Your task to perform on an android device: Add "apple airpods pro" to the cart on amazon.com, then select checkout. Image 0: 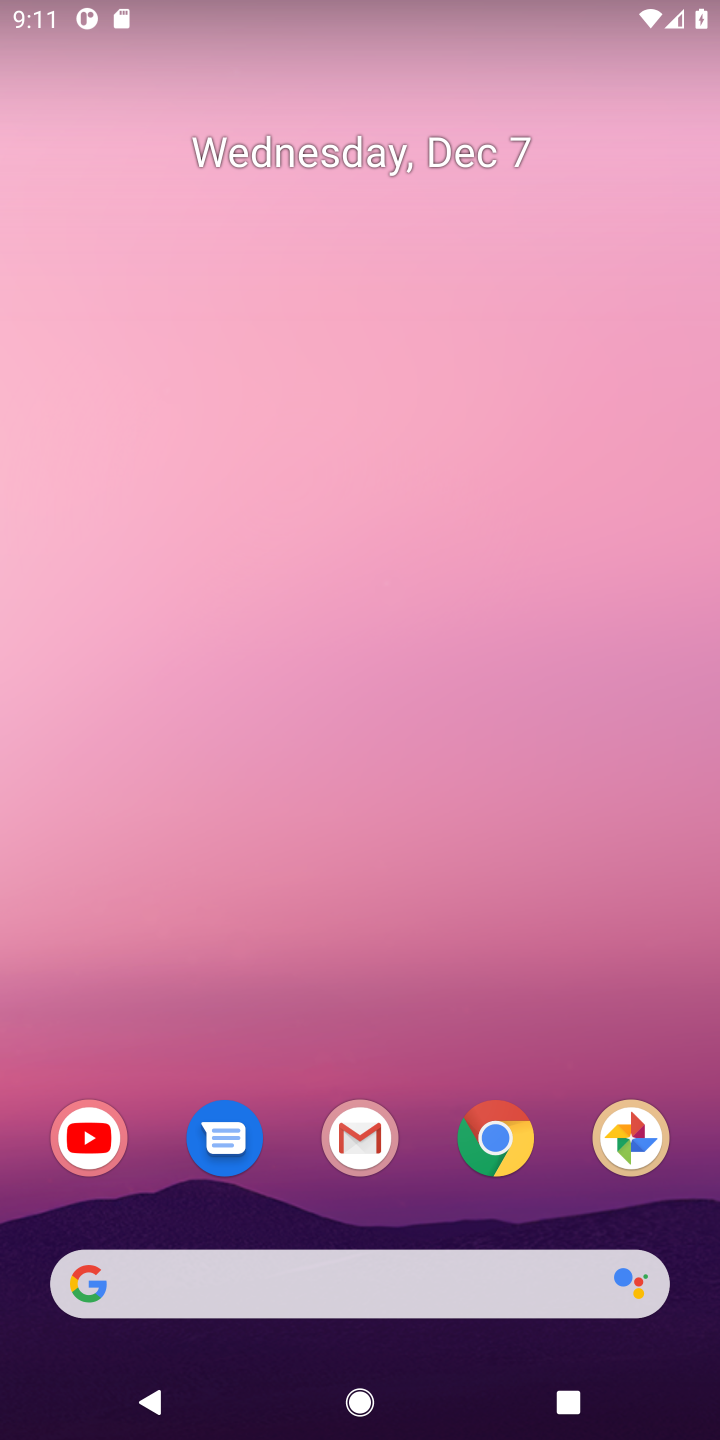
Step 0: press home button
Your task to perform on an android device: Add "apple airpods pro" to the cart on amazon.com, then select checkout. Image 1: 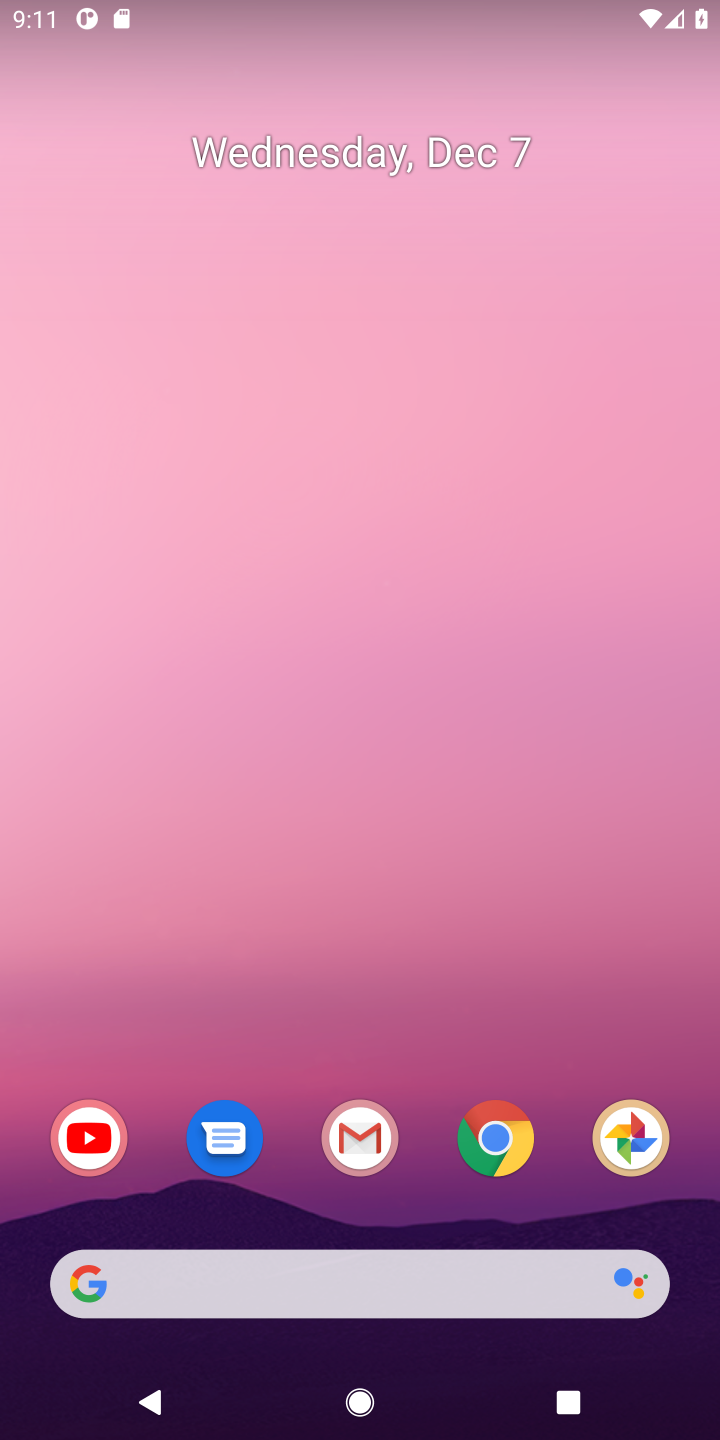
Step 1: click (135, 1280)
Your task to perform on an android device: Add "apple airpods pro" to the cart on amazon.com, then select checkout. Image 2: 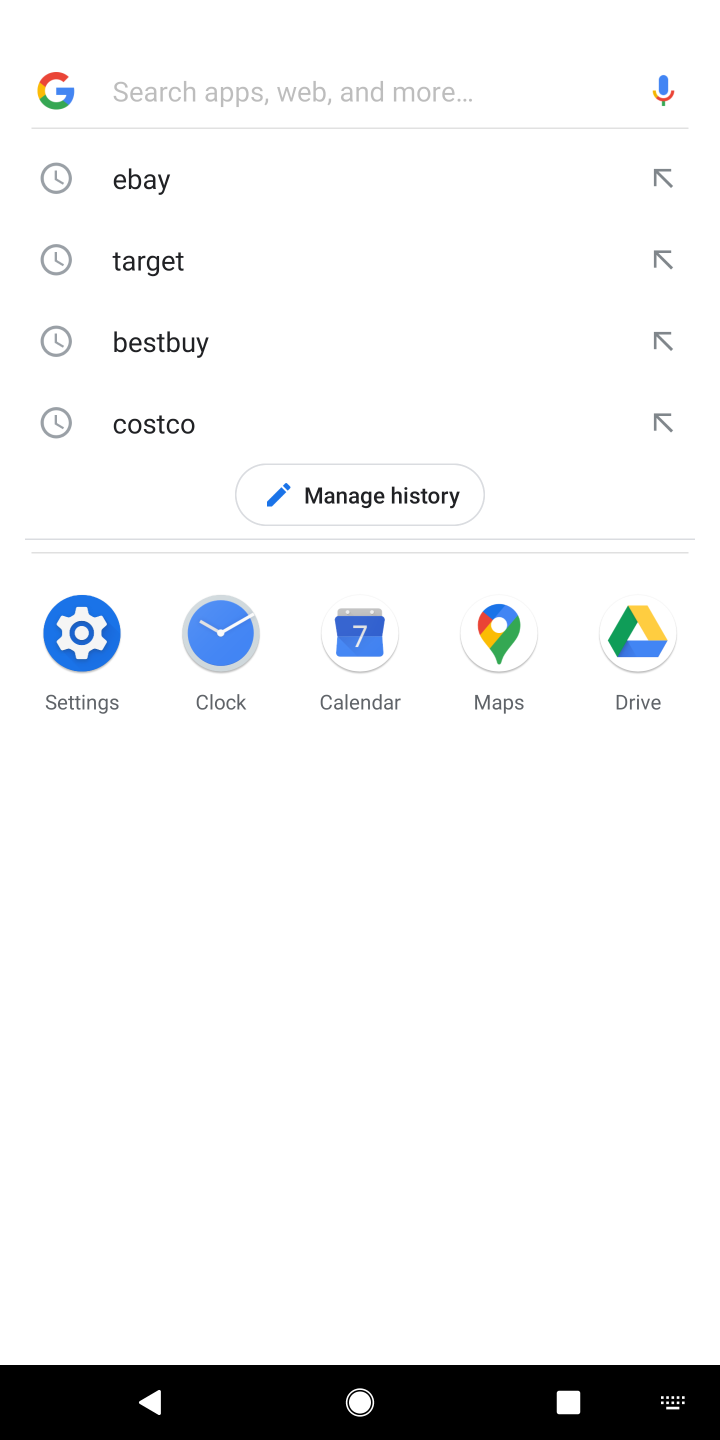
Step 2: press enter
Your task to perform on an android device: Add "apple airpods pro" to the cart on amazon.com, then select checkout. Image 3: 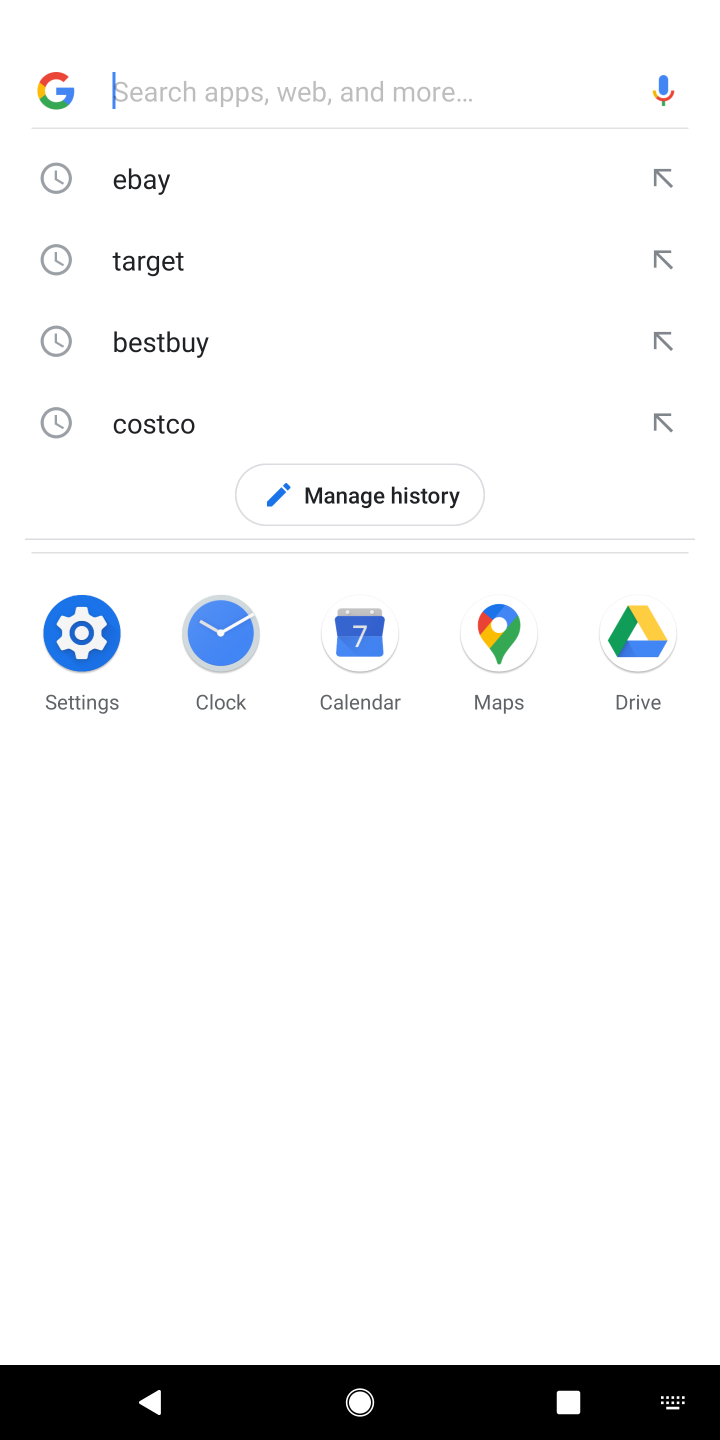
Step 3: type "amazon.com"
Your task to perform on an android device: Add "apple airpods pro" to the cart on amazon.com, then select checkout. Image 4: 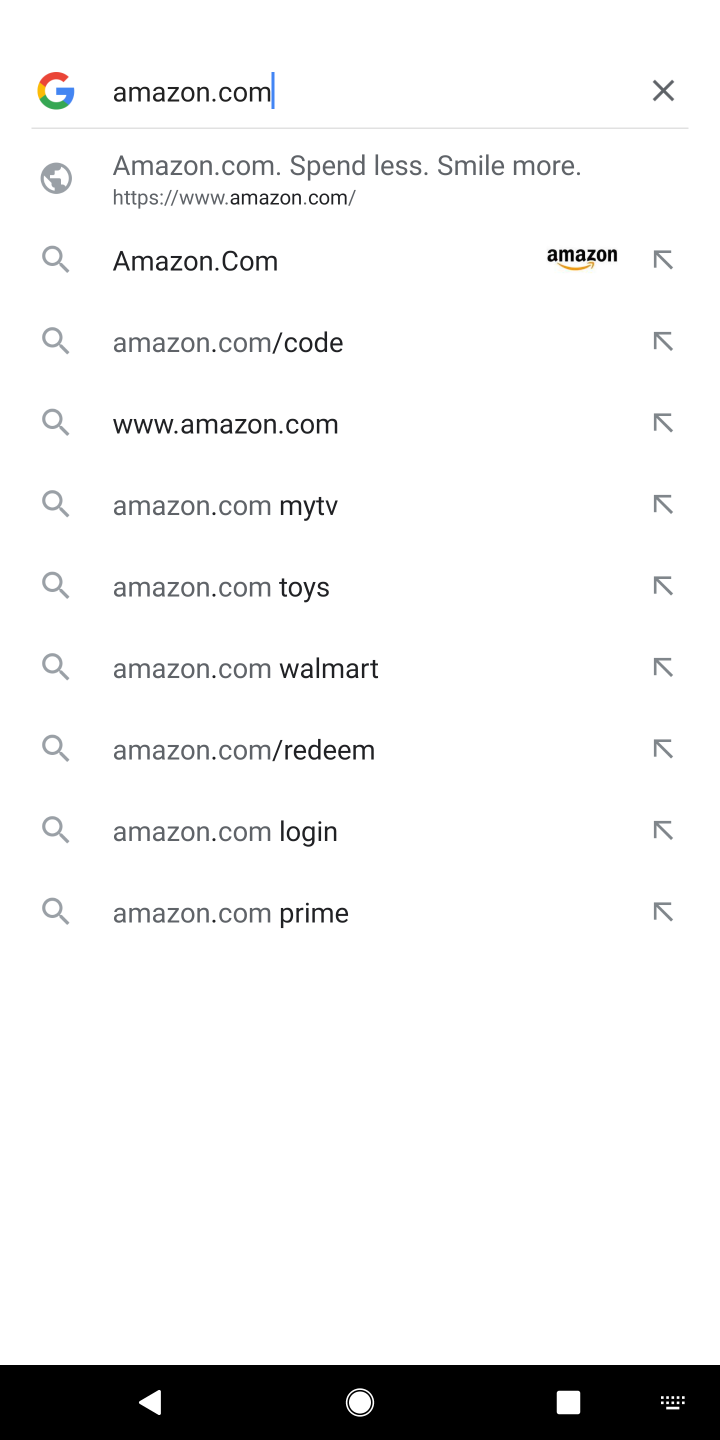
Step 4: press enter
Your task to perform on an android device: Add "apple airpods pro" to the cart on amazon.com, then select checkout. Image 5: 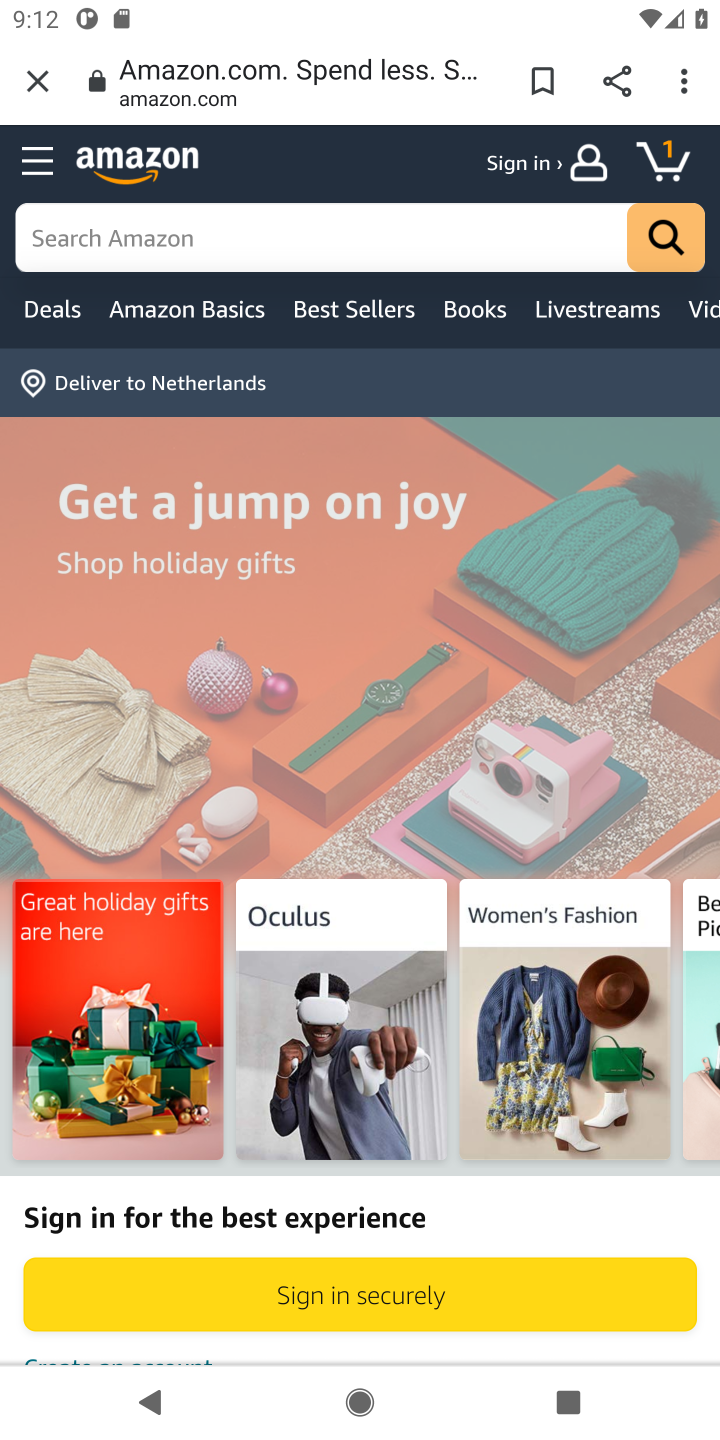
Step 5: click (70, 229)
Your task to perform on an android device: Add "apple airpods pro" to the cart on amazon.com, then select checkout. Image 6: 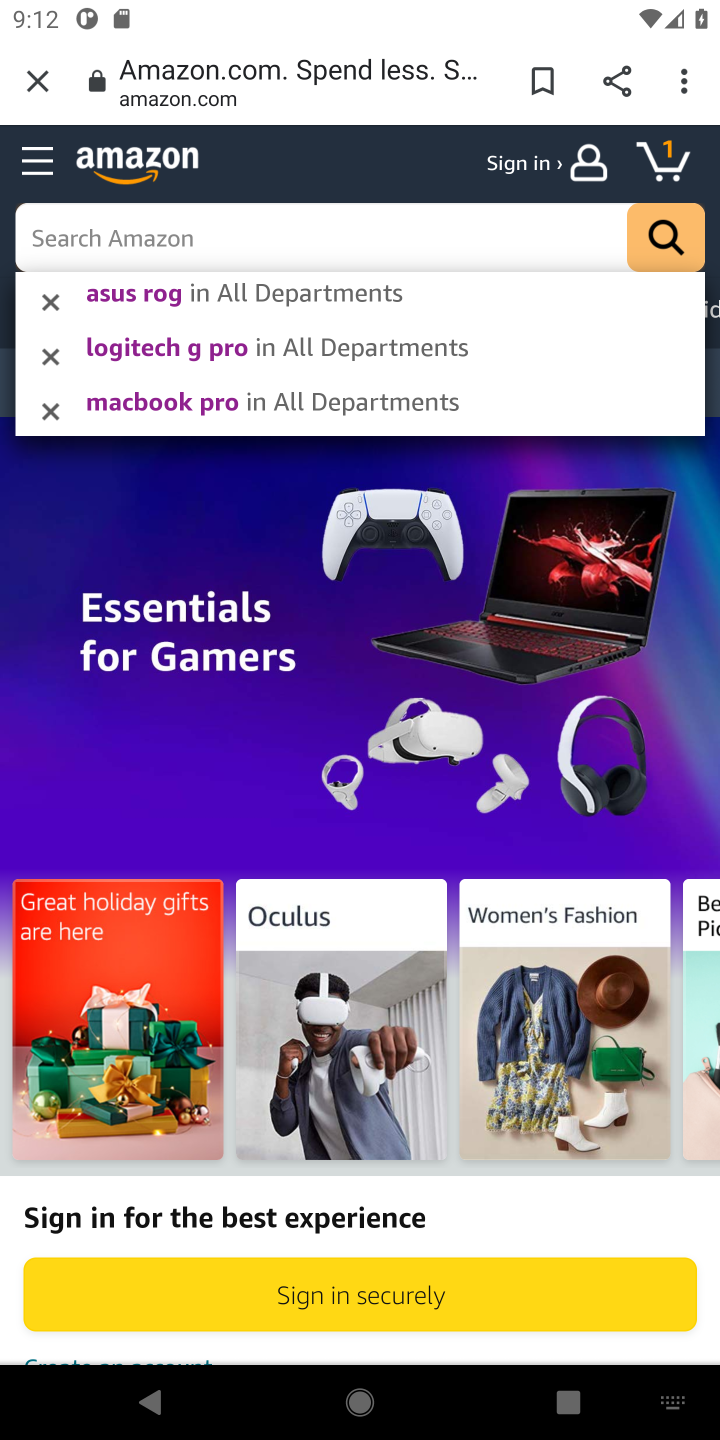
Step 6: type "apple airpods pro"
Your task to perform on an android device: Add "apple airpods pro" to the cart on amazon.com, then select checkout. Image 7: 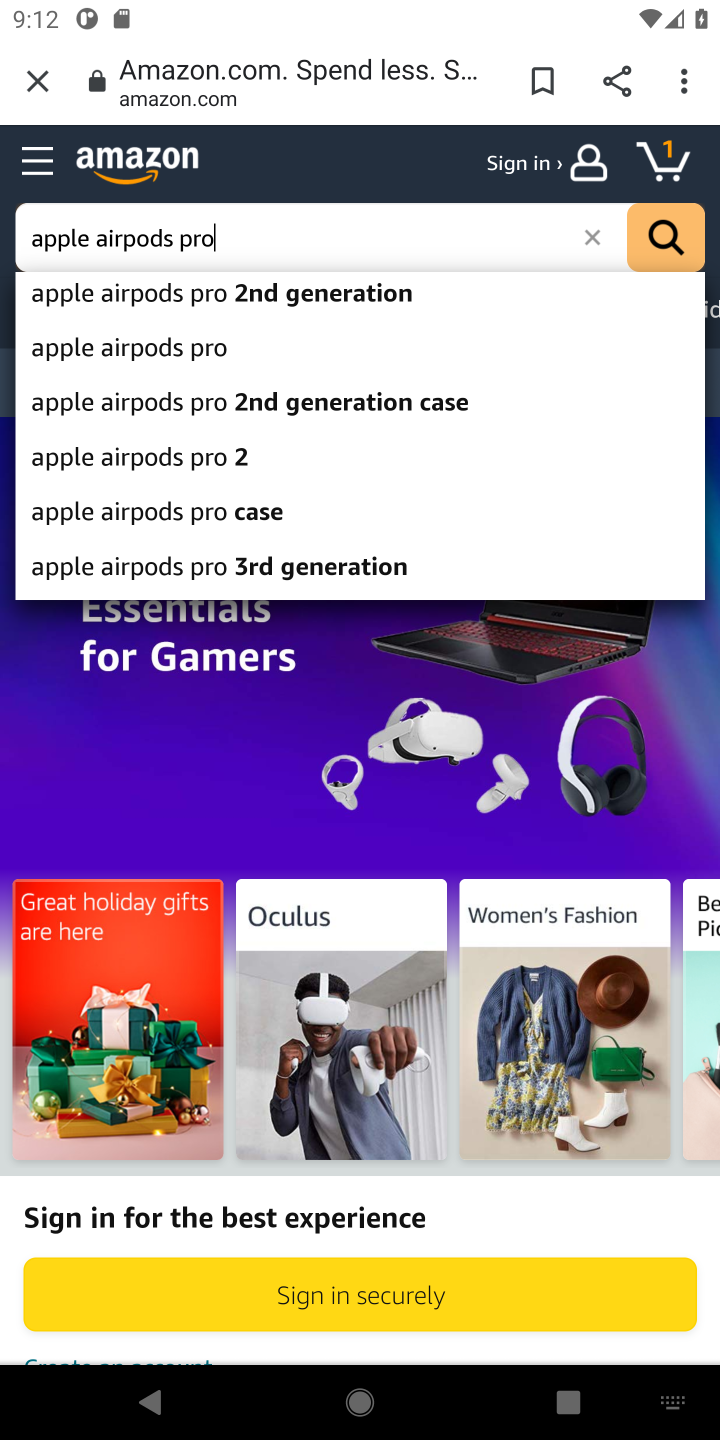
Step 7: press enter
Your task to perform on an android device: Add "apple airpods pro" to the cart on amazon.com, then select checkout. Image 8: 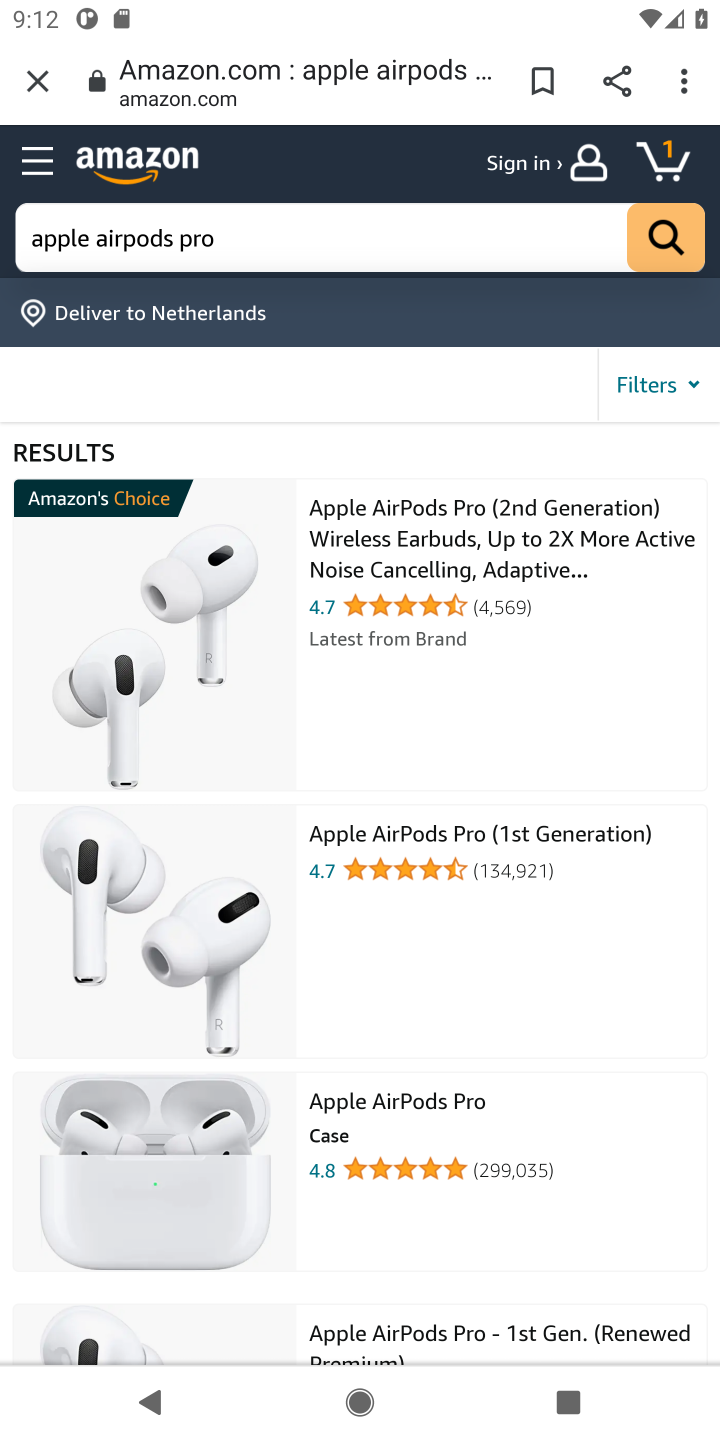
Step 8: click (431, 543)
Your task to perform on an android device: Add "apple airpods pro" to the cart on amazon.com, then select checkout. Image 9: 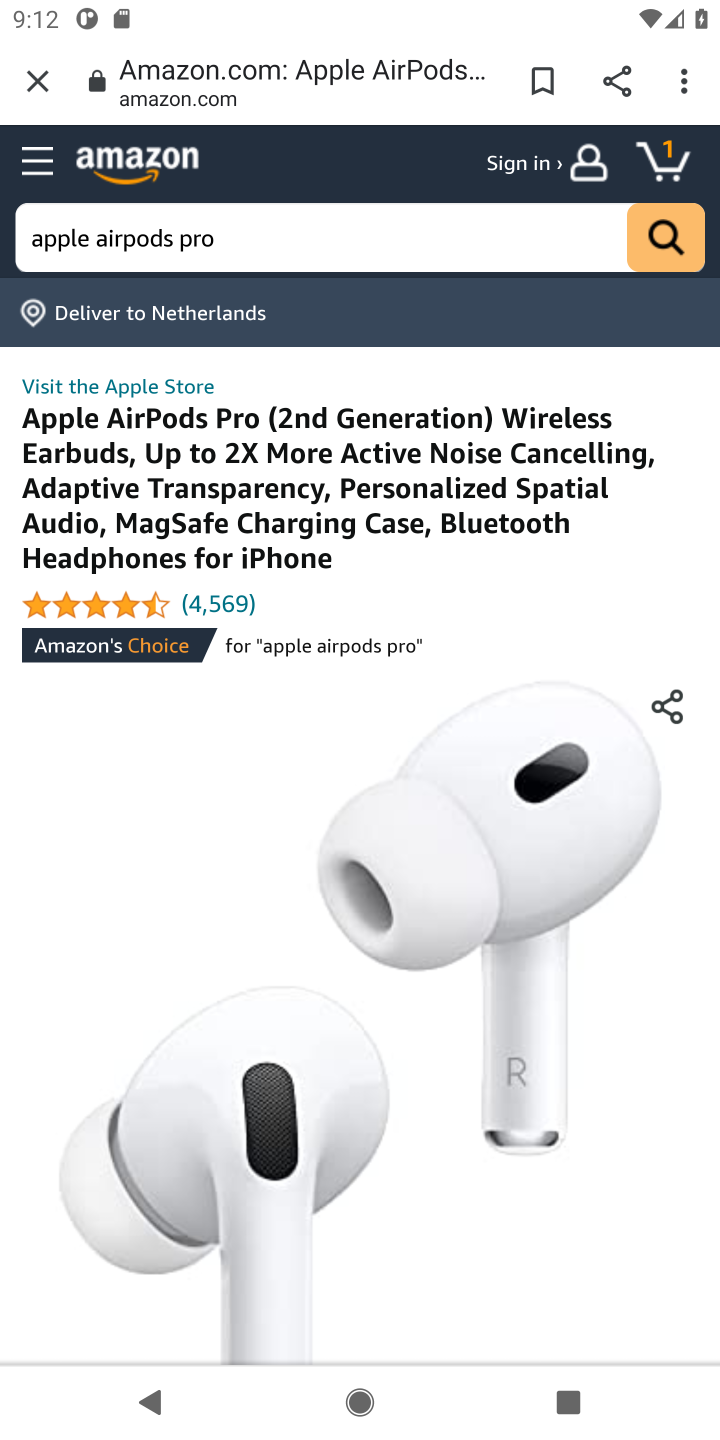
Step 9: task complete